Your task to perform on an android device: Go to wifi settings Image 0: 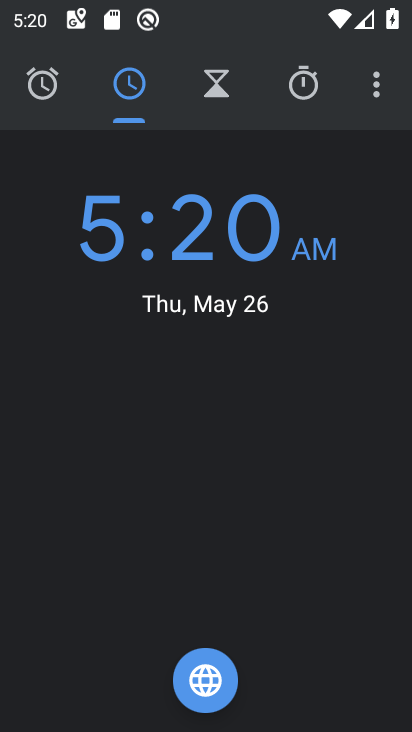
Step 0: press home button
Your task to perform on an android device: Go to wifi settings Image 1: 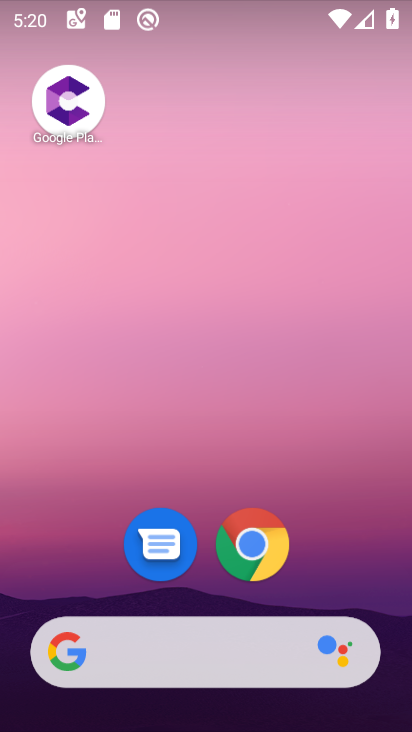
Step 1: drag from (60, 586) to (131, 146)
Your task to perform on an android device: Go to wifi settings Image 2: 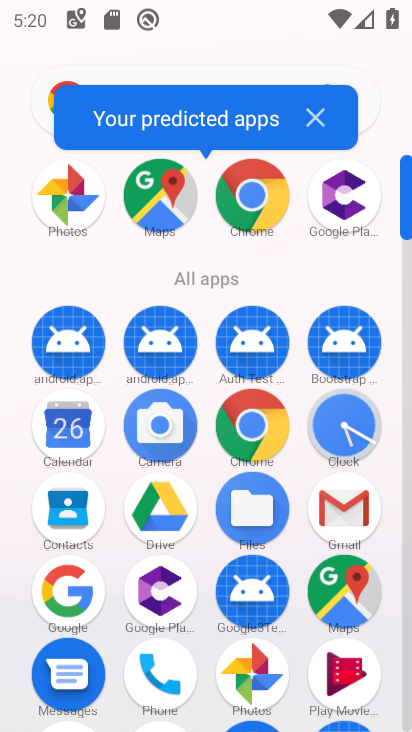
Step 2: drag from (169, 418) to (220, 299)
Your task to perform on an android device: Go to wifi settings Image 3: 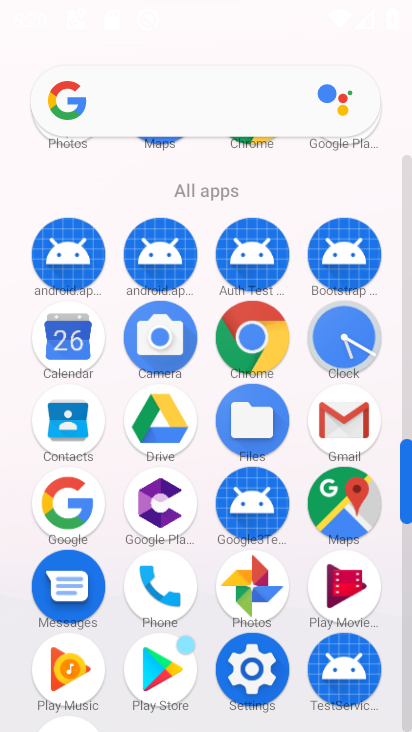
Step 3: click (260, 681)
Your task to perform on an android device: Go to wifi settings Image 4: 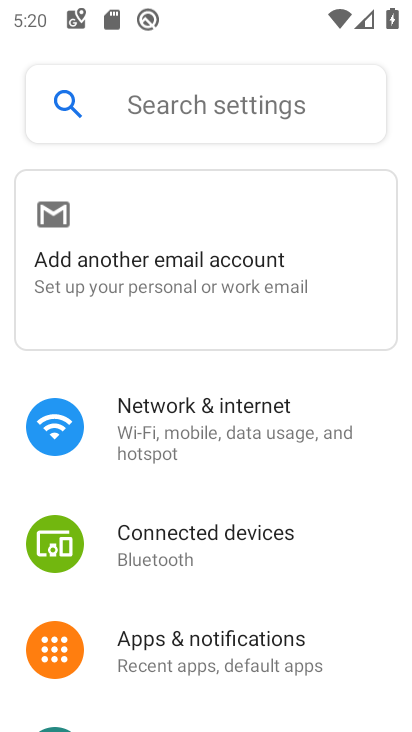
Step 4: click (215, 438)
Your task to perform on an android device: Go to wifi settings Image 5: 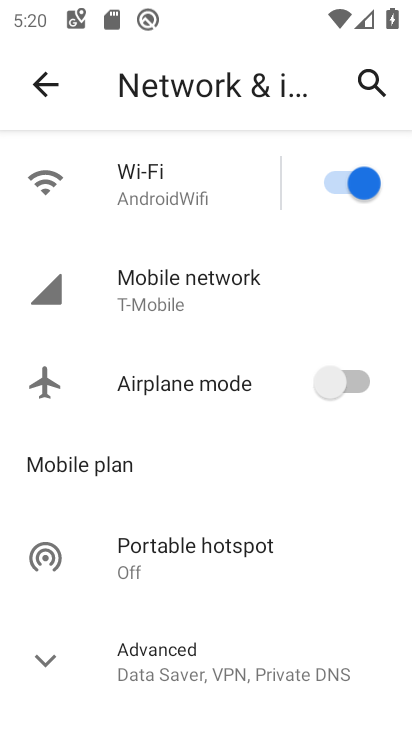
Step 5: click (194, 200)
Your task to perform on an android device: Go to wifi settings Image 6: 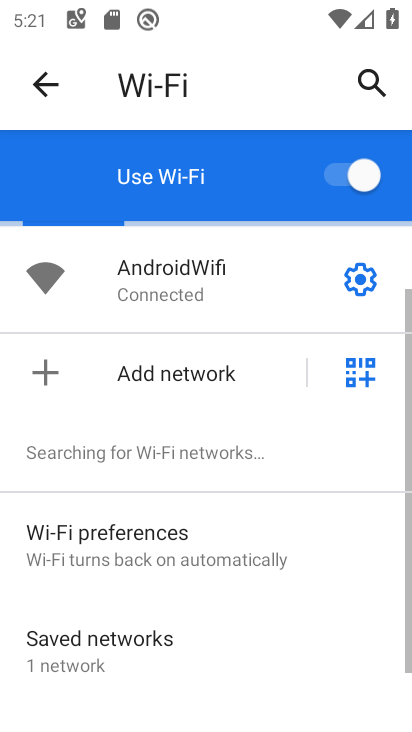
Step 6: task complete